Your task to perform on an android device: Go to Amazon Image 0: 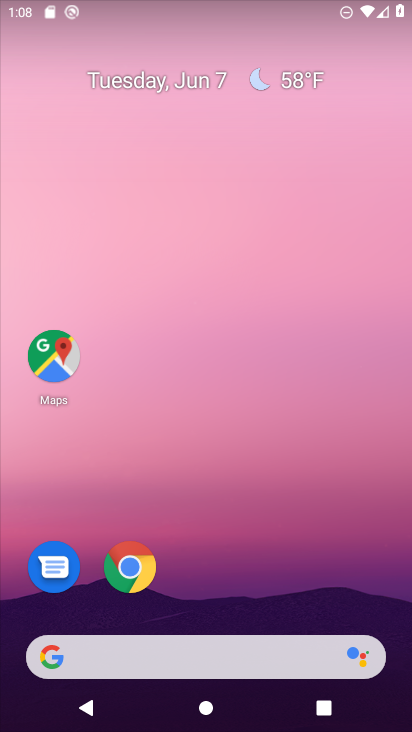
Step 0: click (132, 570)
Your task to perform on an android device: Go to Amazon Image 1: 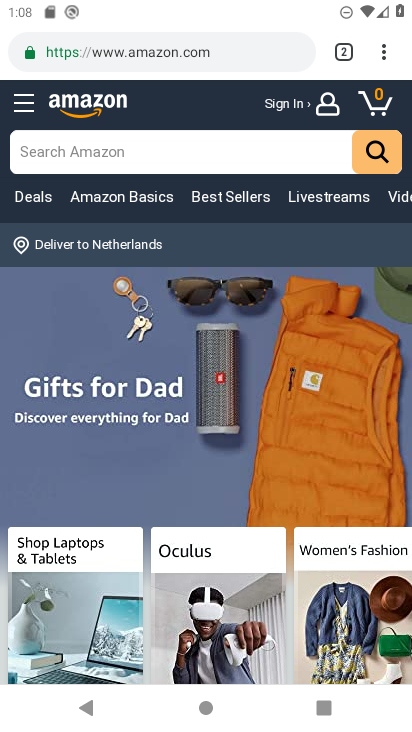
Step 1: task complete